Your task to perform on an android device: delete location history Image 0: 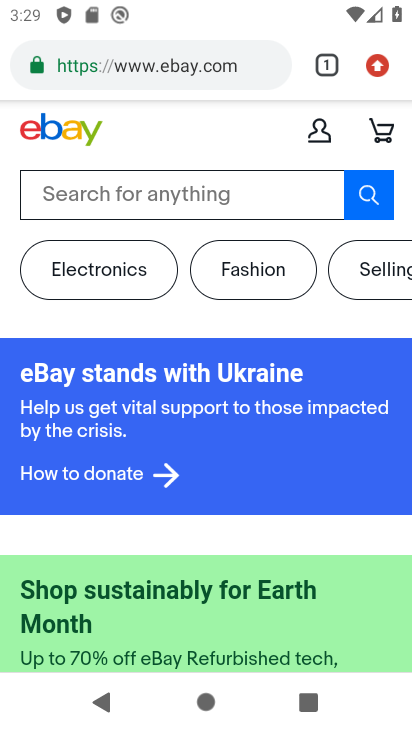
Step 0: click (375, 68)
Your task to perform on an android device: delete location history Image 1: 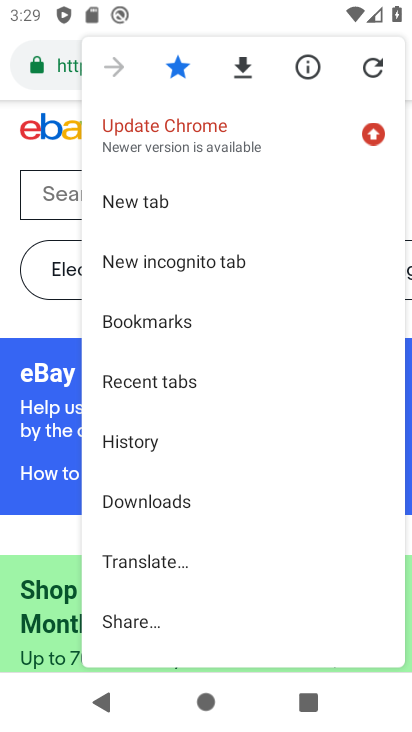
Step 1: click (126, 443)
Your task to perform on an android device: delete location history Image 2: 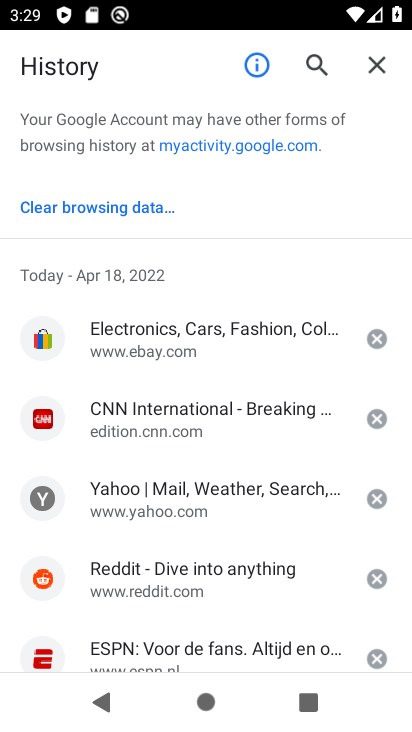
Step 2: click (86, 206)
Your task to perform on an android device: delete location history Image 3: 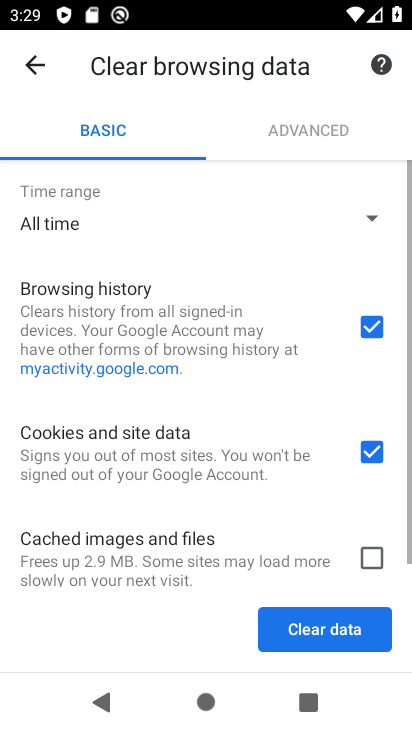
Step 3: click (372, 448)
Your task to perform on an android device: delete location history Image 4: 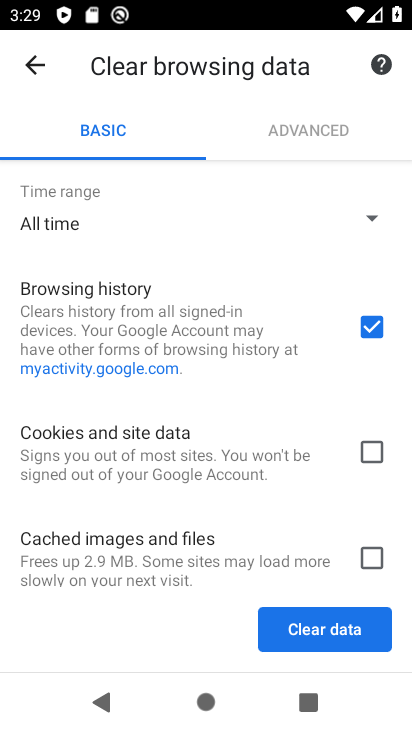
Step 4: click (318, 631)
Your task to perform on an android device: delete location history Image 5: 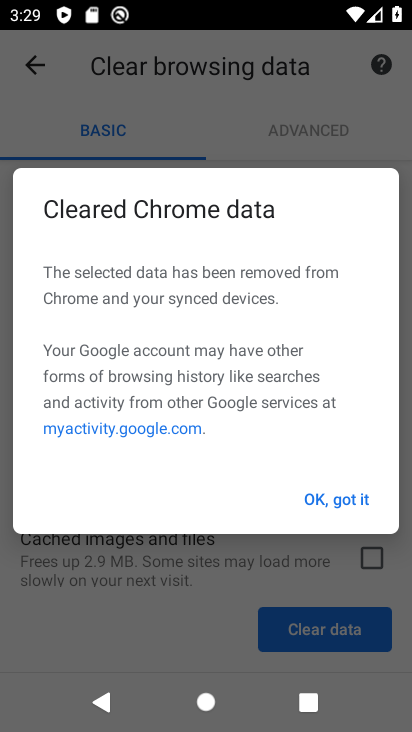
Step 5: click (334, 499)
Your task to perform on an android device: delete location history Image 6: 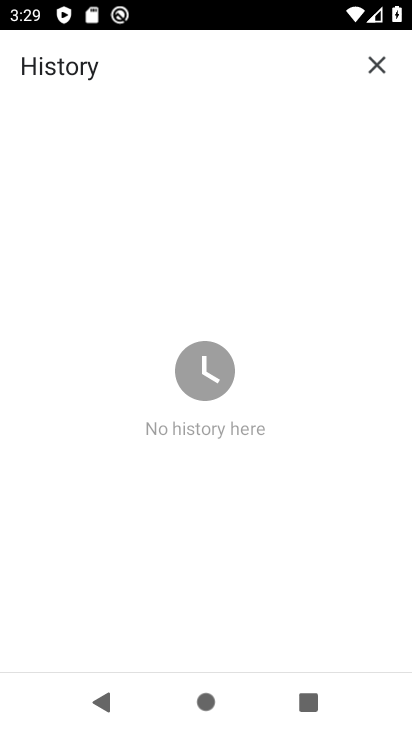
Step 6: task complete